Your task to perform on an android device: find snoozed emails in the gmail app Image 0: 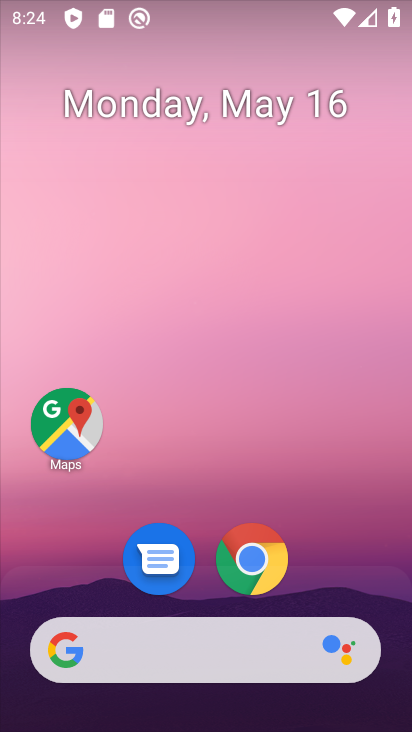
Step 0: drag from (305, 587) to (316, 27)
Your task to perform on an android device: find snoozed emails in the gmail app Image 1: 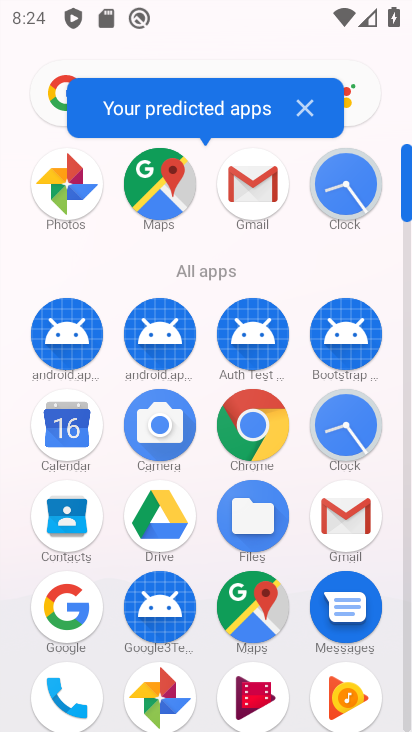
Step 1: click (333, 521)
Your task to perform on an android device: find snoozed emails in the gmail app Image 2: 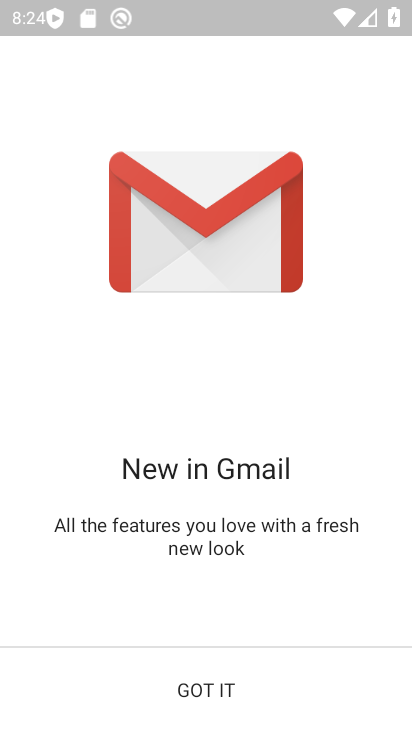
Step 2: click (270, 686)
Your task to perform on an android device: find snoozed emails in the gmail app Image 3: 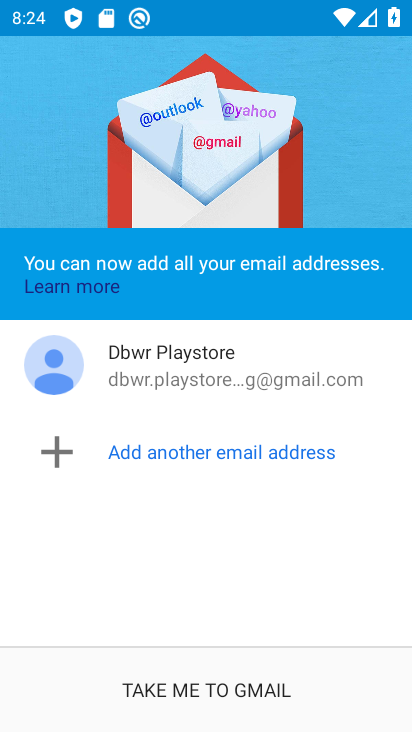
Step 3: click (212, 683)
Your task to perform on an android device: find snoozed emails in the gmail app Image 4: 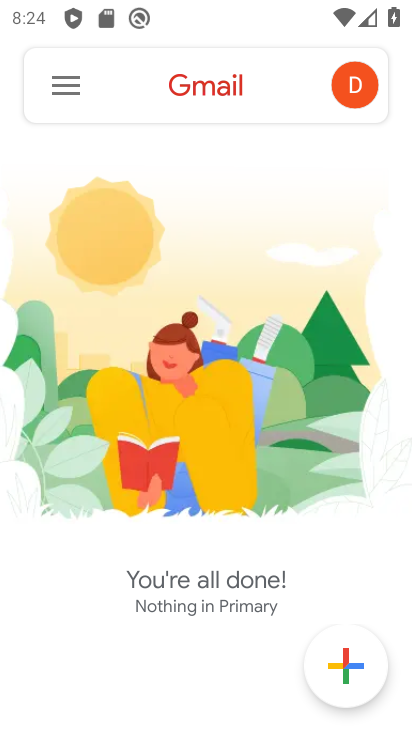
Step 4: click (54, 79)
Your task to perform on an android device: find snoozed emails in the gmail app Image 5: 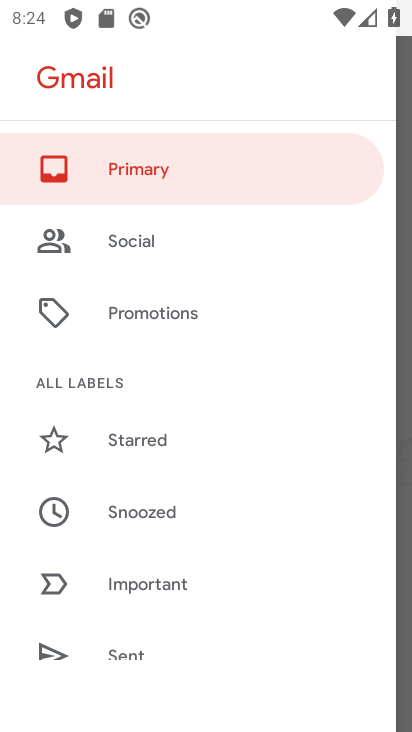
Step 5: click (160, 503)
Your task to perform on an android device: find snoozed emails in the gmail app Image 6: 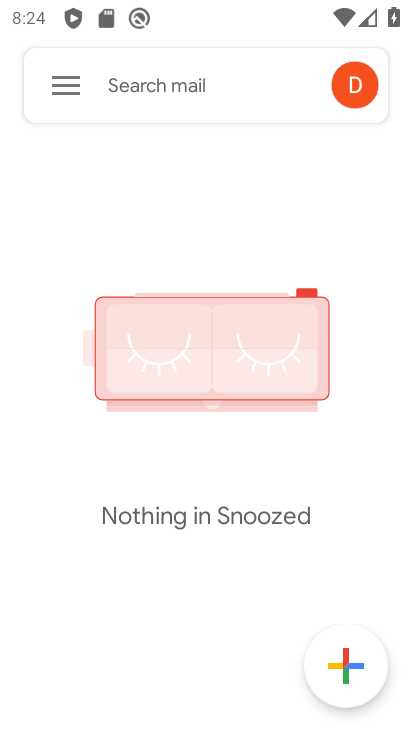
Step 6: task complete